Your task to perform on an android device: Open privacy settings Image 0: 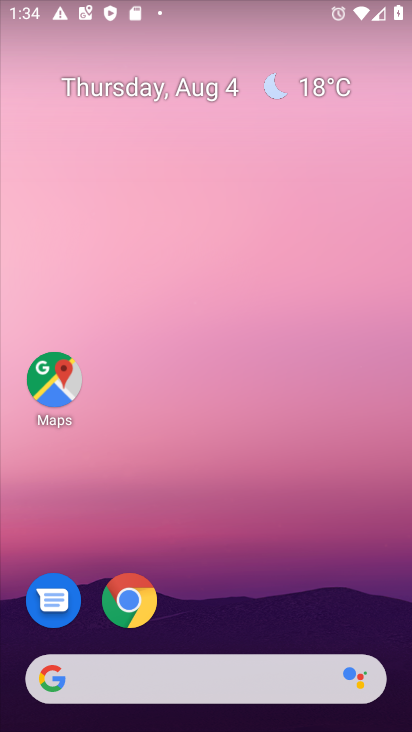
Step 0: press home button
Your task to perform on an android device: Open privacy settings Image 1: 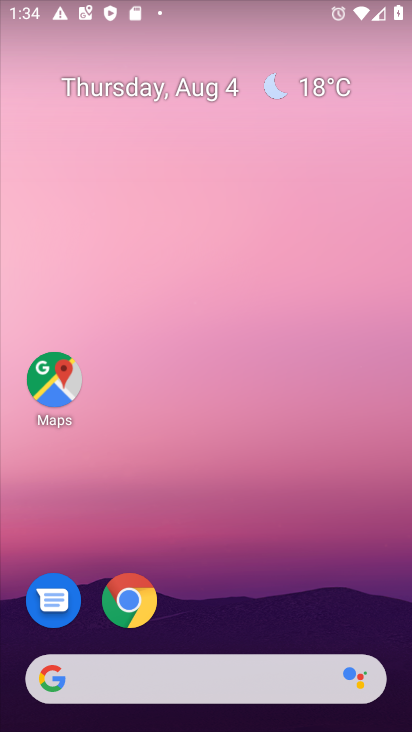
Step 1: drag from (210, 683) to (286, 83)
Your task to perform on an android device: Open privacy settings Image 2: 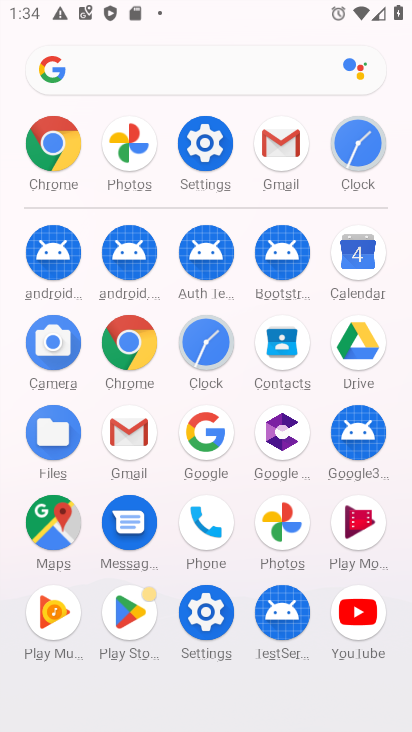
Step 2: click (205, 152)
Your task to perform on an android device: Open privacy settings Image 3: 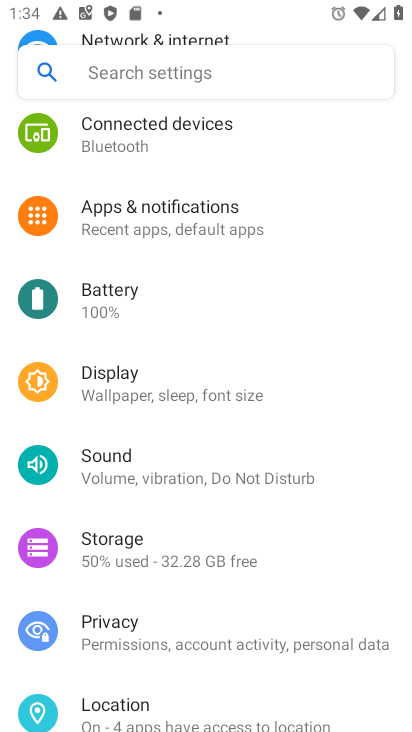
Step 3: click (138, 636)
Your task to perform on an android device: Open privacy settings Image 4: 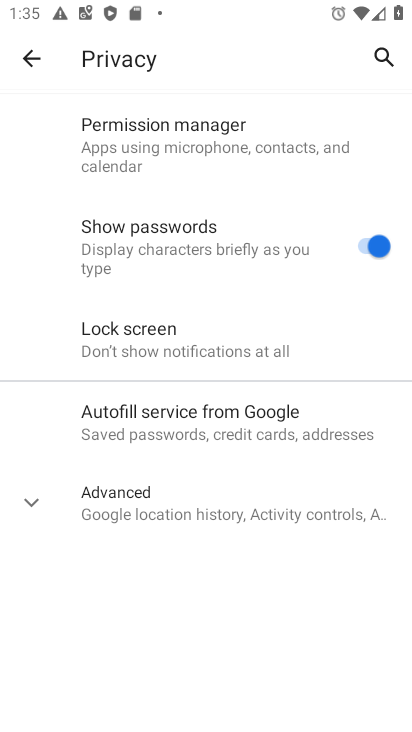
Step 4: task complete